Your task to perform on an android device: turn off translation in the chrome app Image 0: 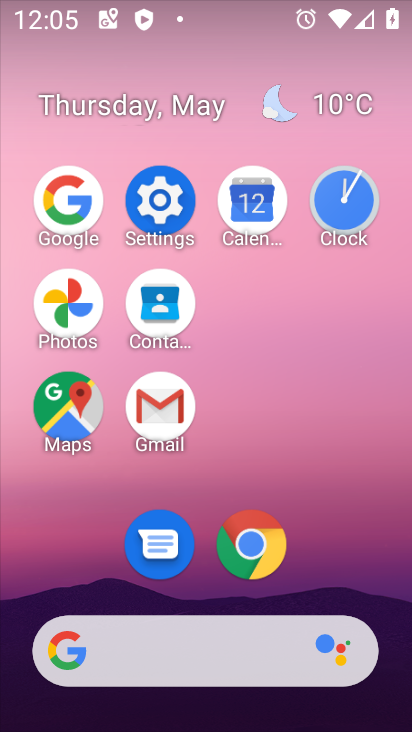
Step 0: click (252, 536)
Your task to perform on an android device: turn off translation in the chrome app Image 1: 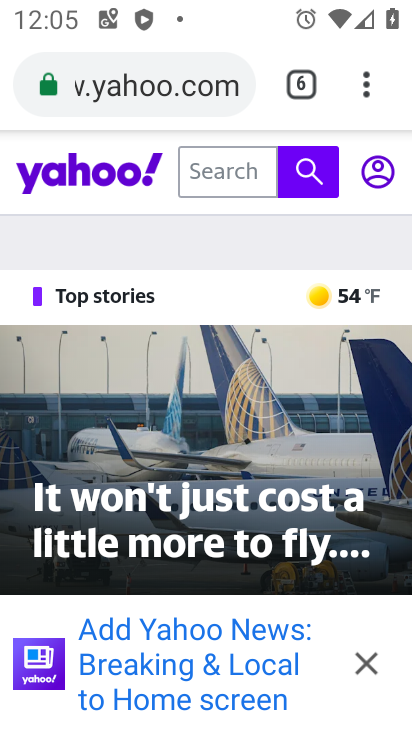
Step 1: click (367, 90)
Your task to perform on an android device: turn off translation in the chrome app Image 2: 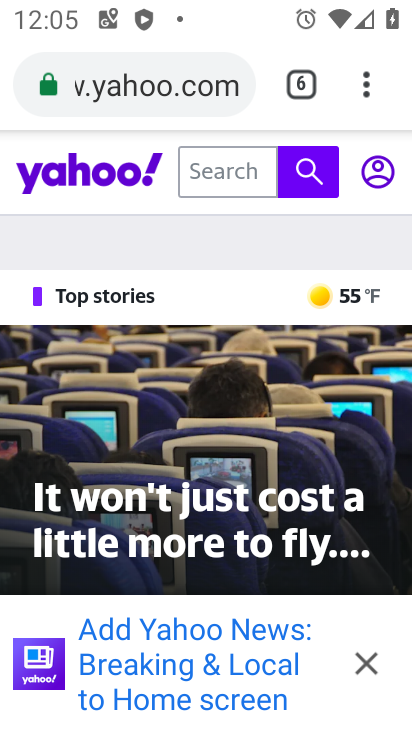
Step 2: click (386, 76)
Your task to perform on an android device: turn off translation in the chrome app Image 3: 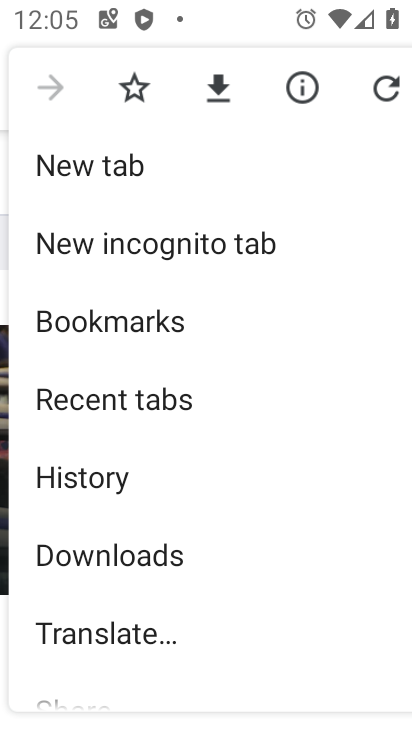
Step 3: drag from (210, 589) to (217, 87)
Your task to perform on an android device: turn off translation in the chrome app Image 4: 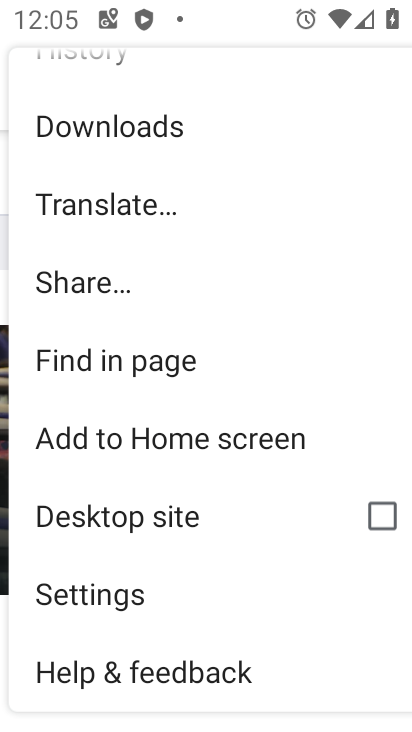
Step 4: click (184, 587)
Your task to perform on an android device: turn off translation in the chrome app Image 5: 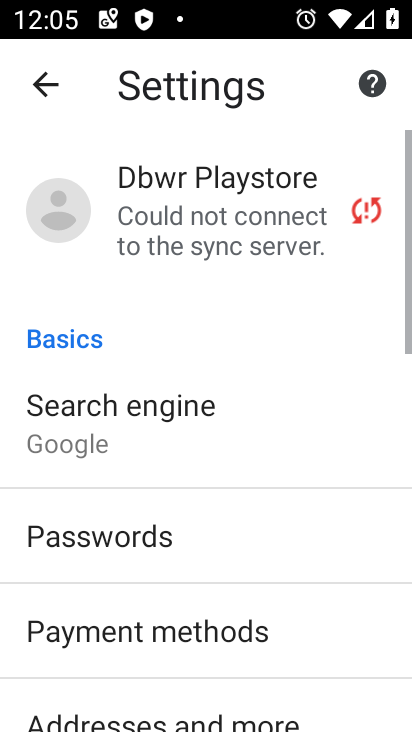
Step 5: drag from (171, 612) to (169, 129)
Your task to perform on an android device: turn off translation in the chrome app Image 6: 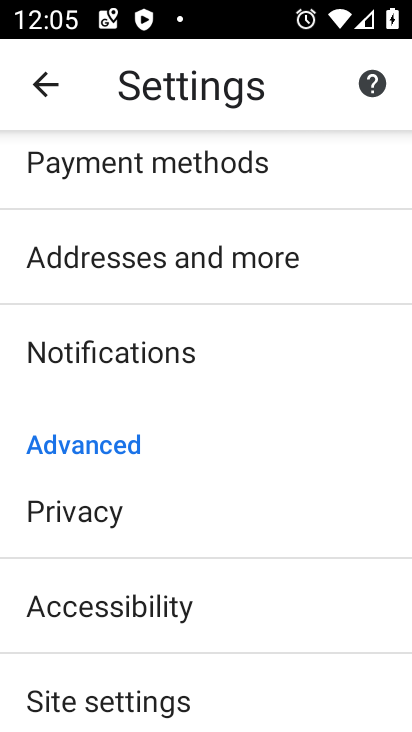
Step 6: drag from (201, 586) to (240, 227)
Your task to perform on an android device: turn off translation in the chrome app Image 7: 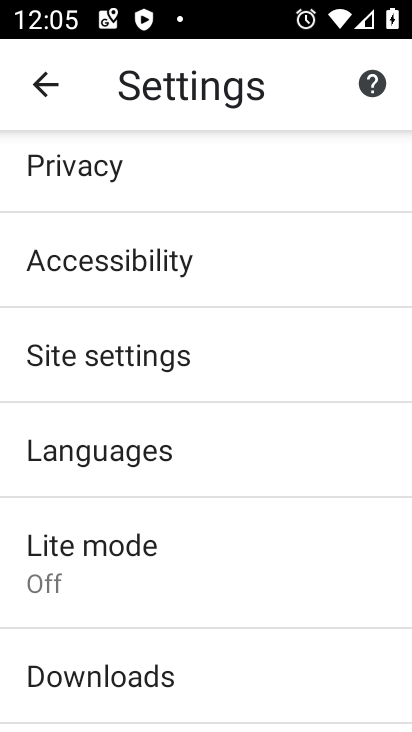
Step 7: click (208, 459)
Your task to perform on an android device: turn off translation in the chrome app Image 8: 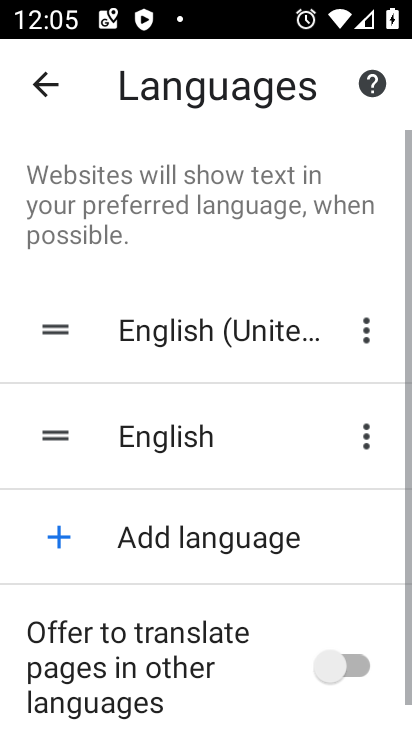
Step 8: task complete